Your task to perform on an android device: Search for flights from London to Paris Image 0: 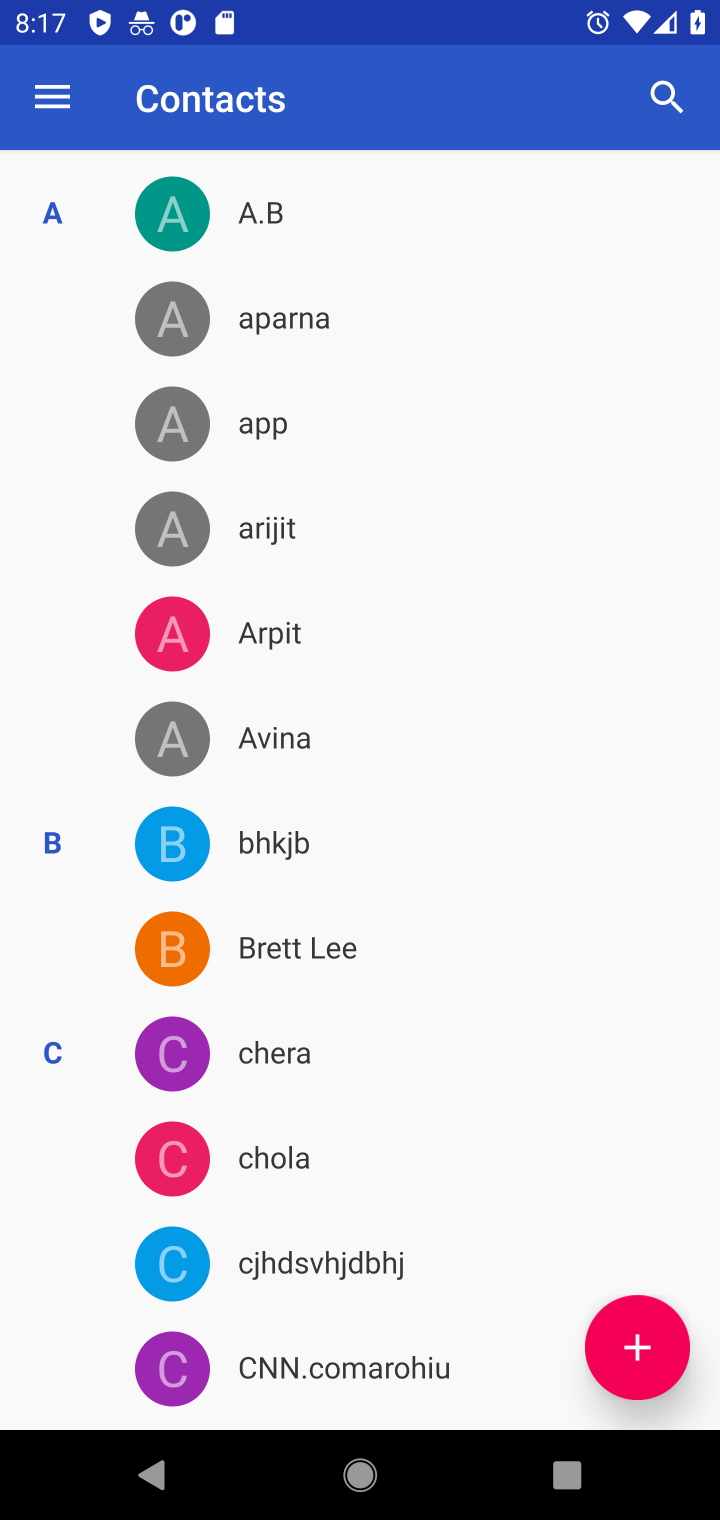
Step 0: press home button
Your task to perform on an android device: Search for flights from London to Paris Image 1: 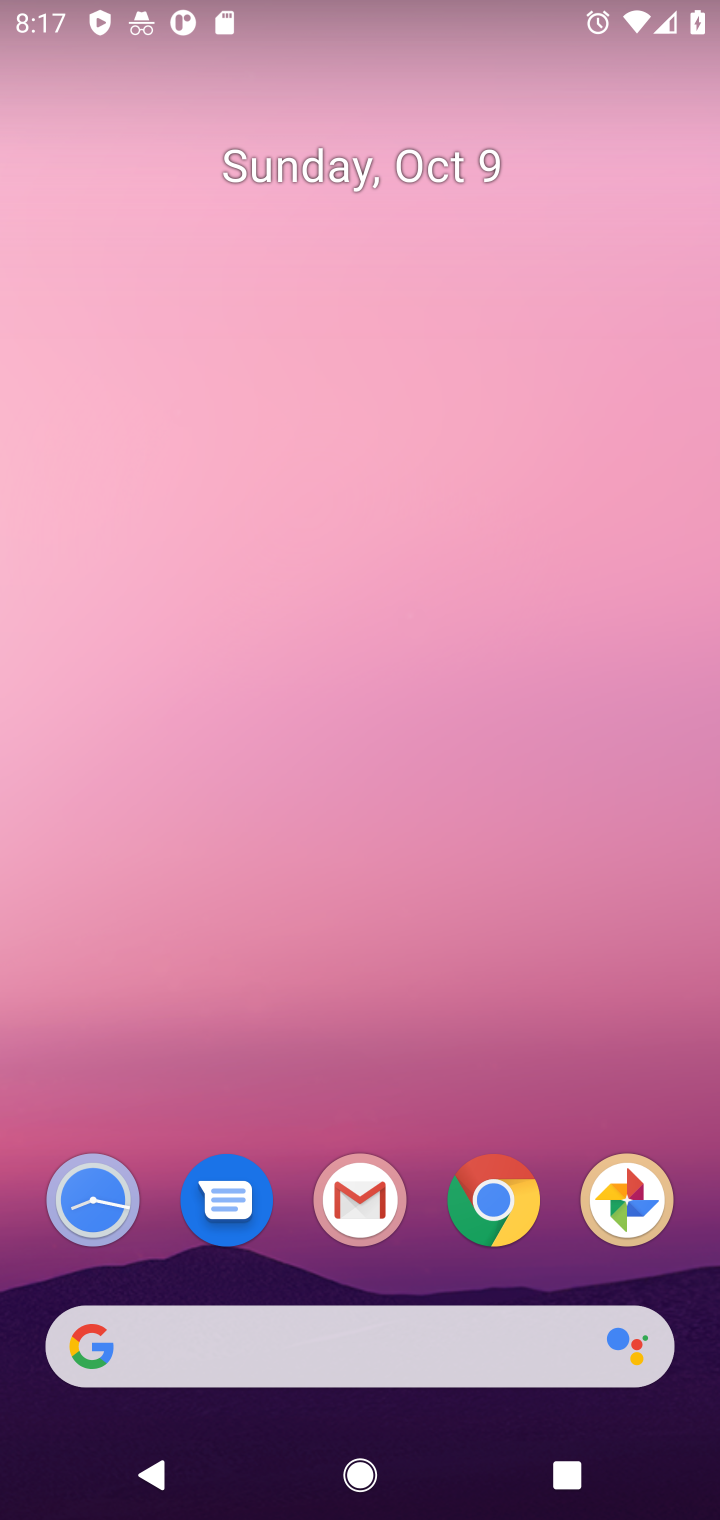
Step 1: click (505, 1229)
Your task to perform on an android device: Search for flights from London to Paris Image 2: 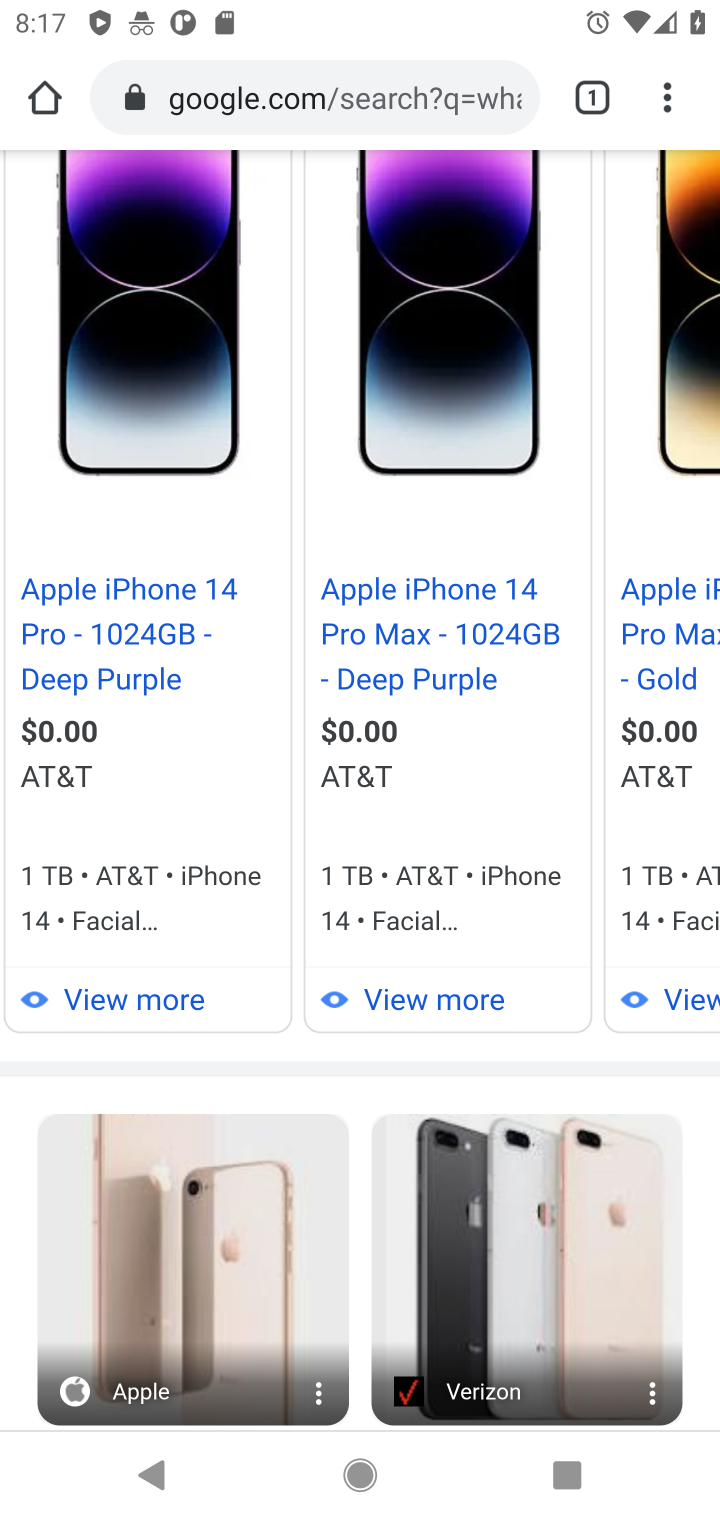
Step 2: click (356, 101)
Your task to perform on an android device: Search for flights from London to Paris Image 3: 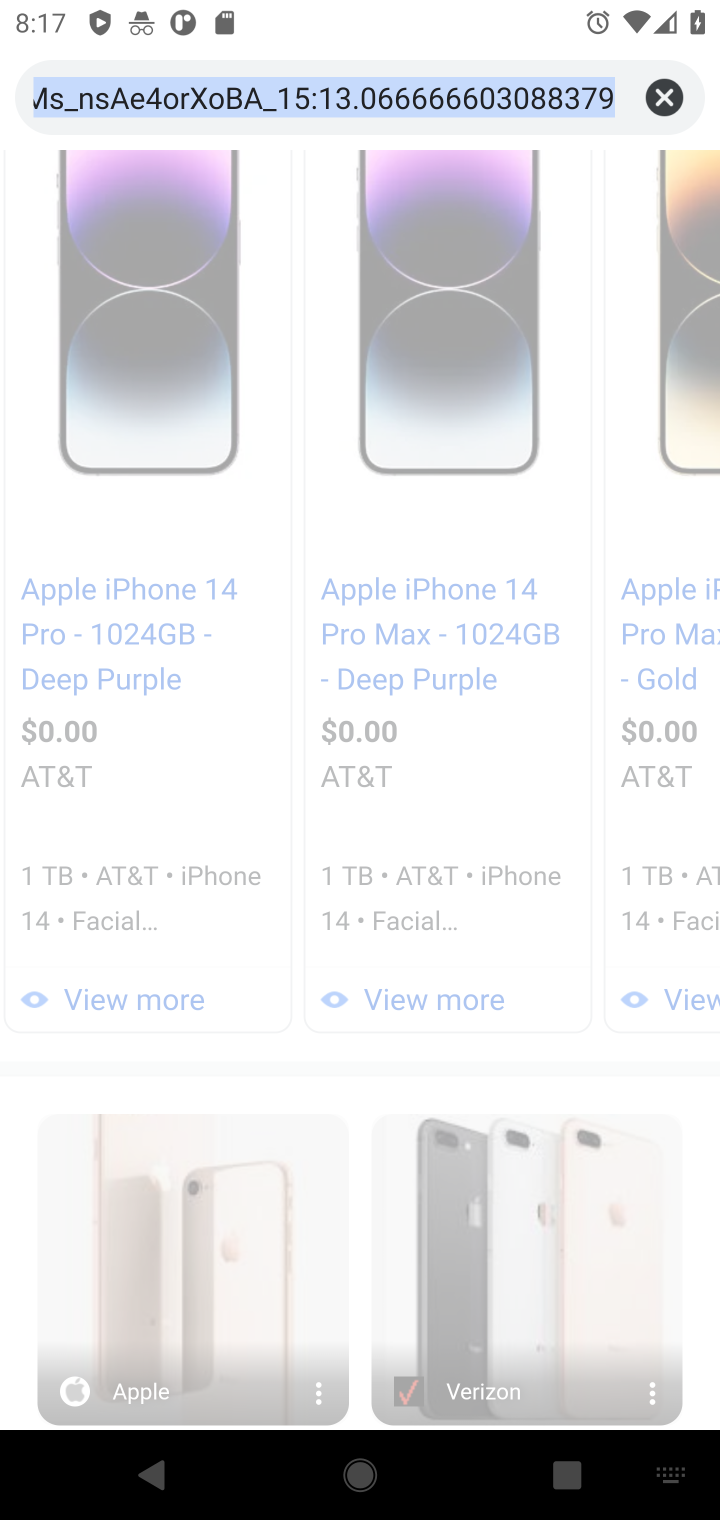
Step 3: type "flights from London to Paris"
Your task to perform on an android device: Search for flights from London to Paris Image 4: 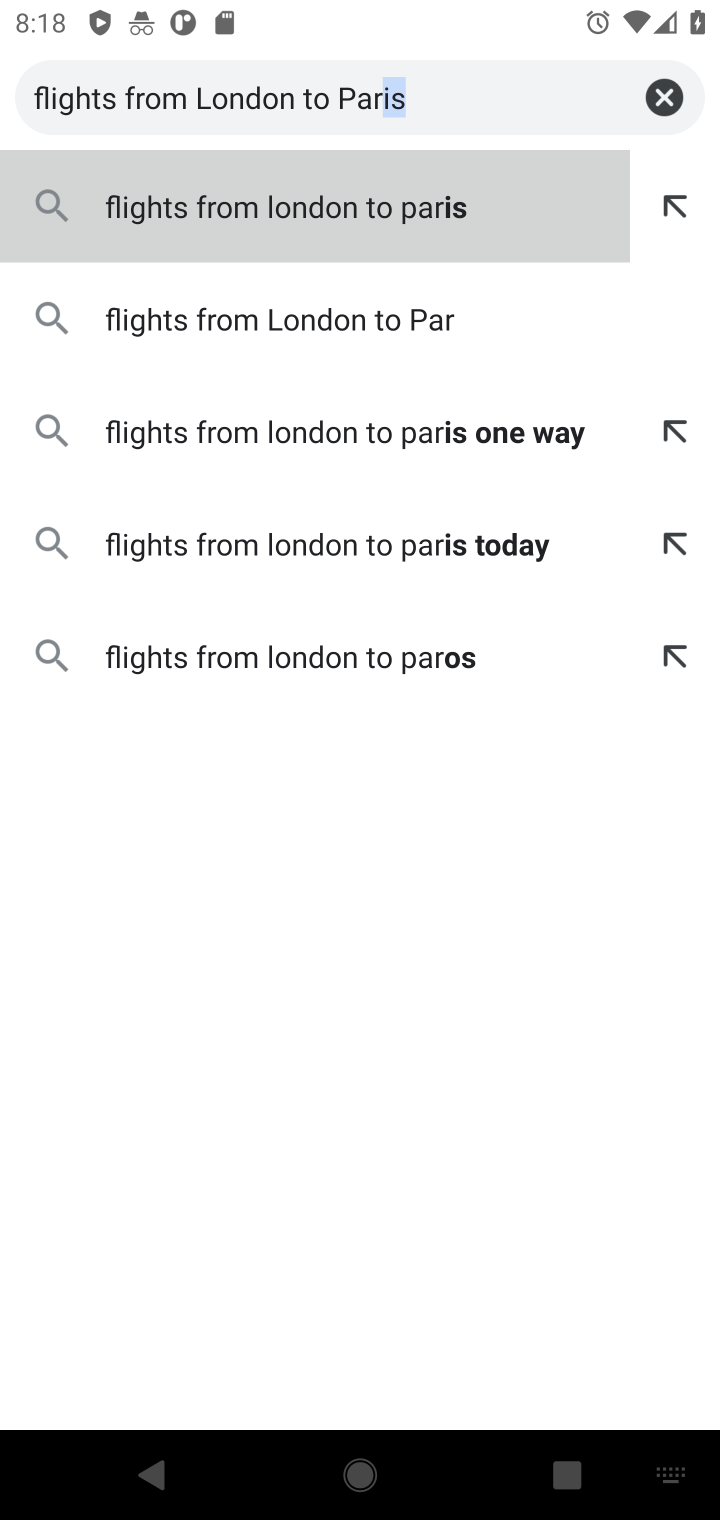
Step 4: click (377, 205)
Your task to perform on an android device: Search for flights from London to Paris Image 5: 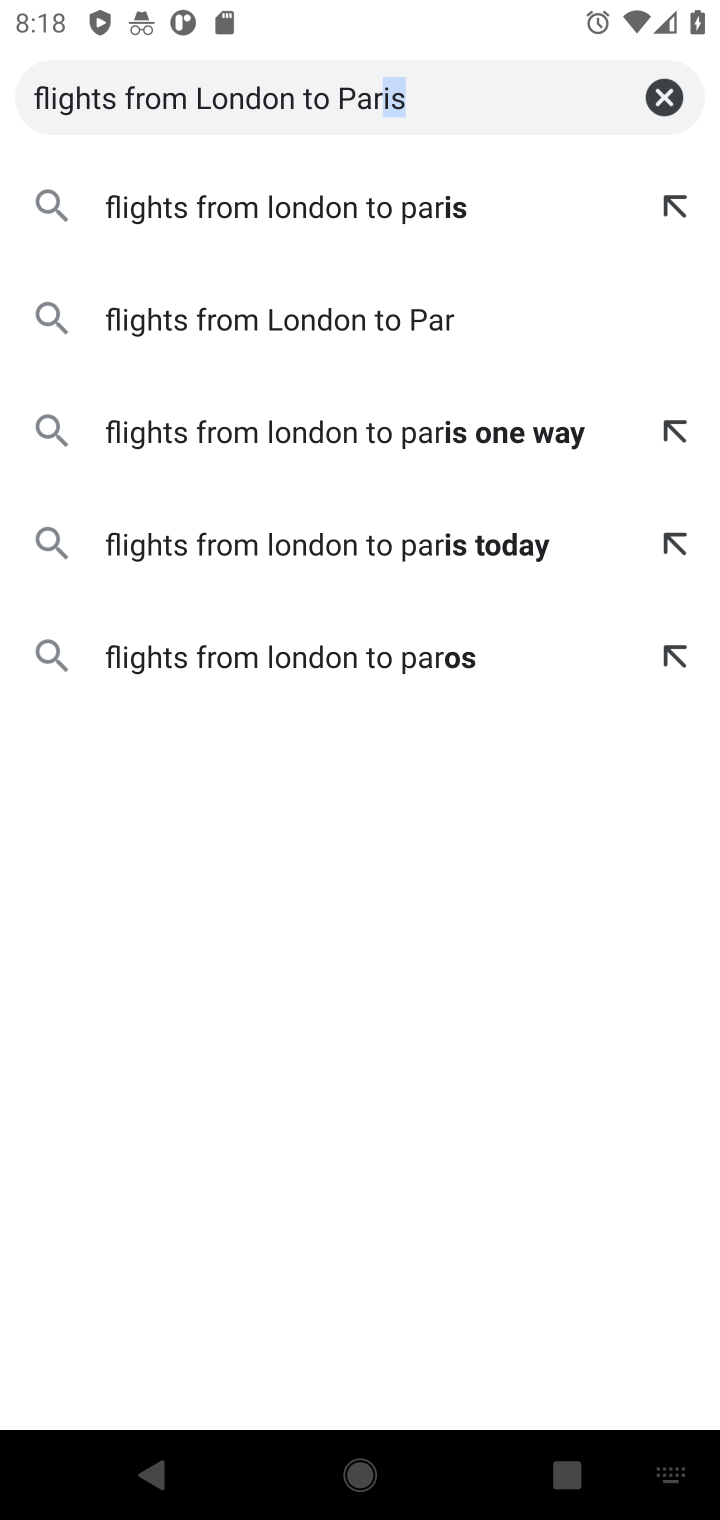
Step 5: click (385, 205)
Your task to perform on an android device: Search for flights from London to Paris Image 6: 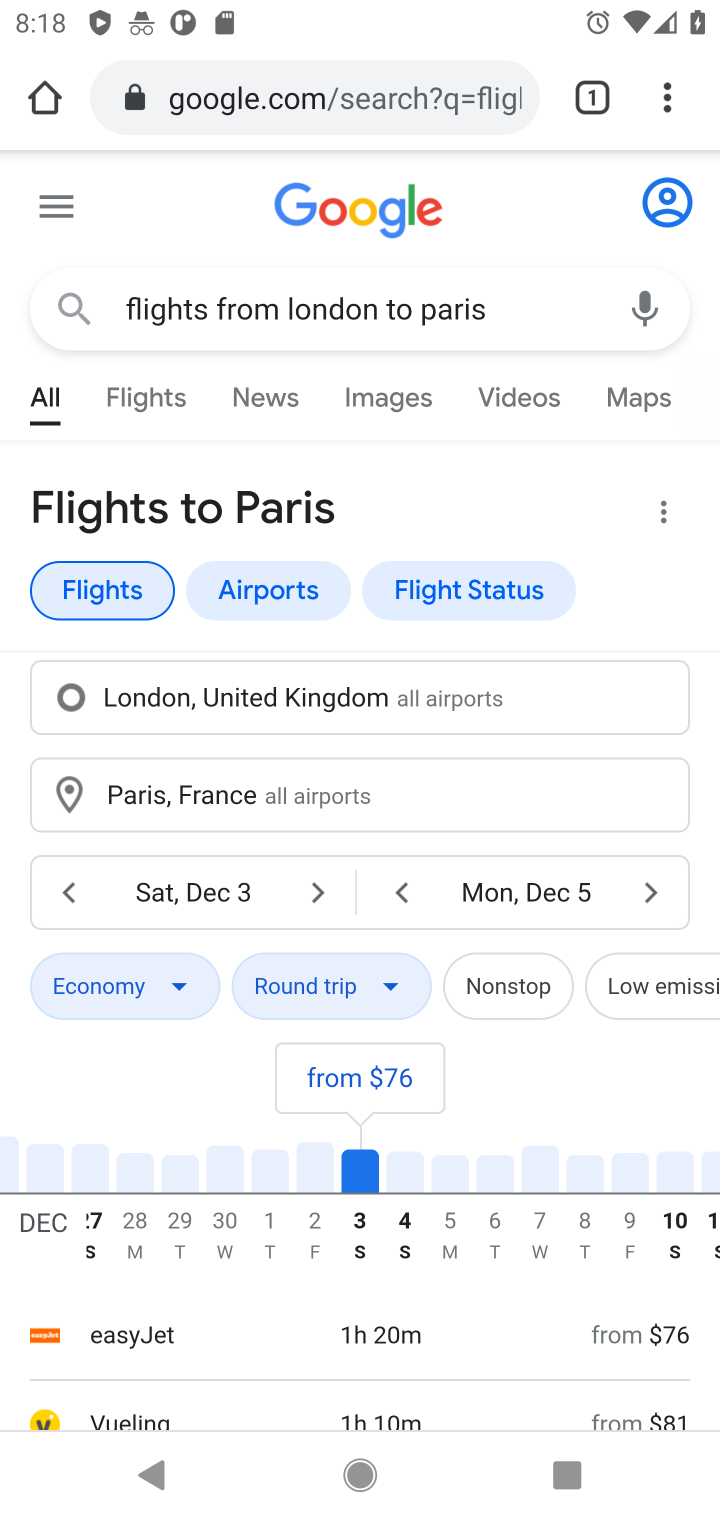
Step 6: drag from (493, 1081) to (438, 548)
Your task to perform on an android device: Search for flights from London to Paris Image 7: 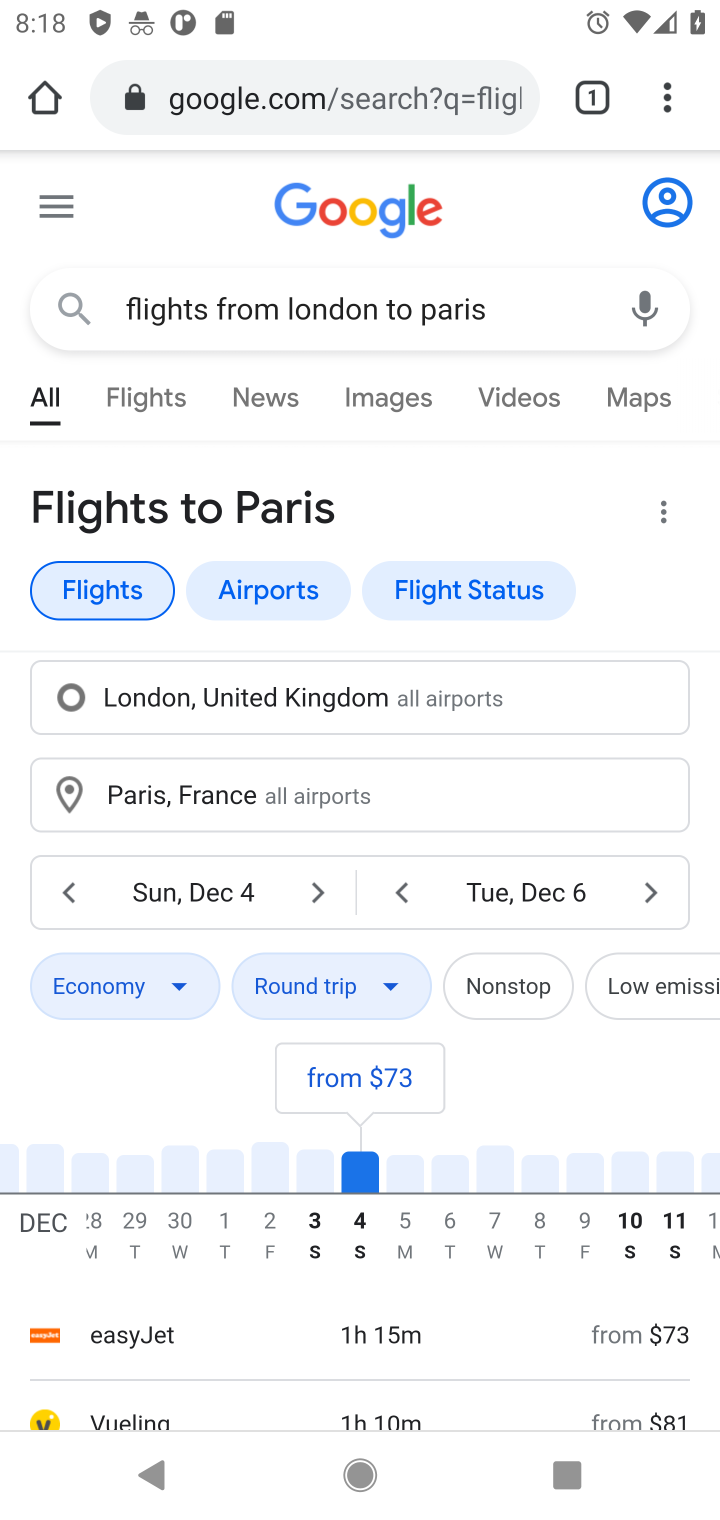
Step 7: drag from (603, 1051) to (516, 377)
Your task to perform on an android device: Search for flights from London to Paris Image 8: 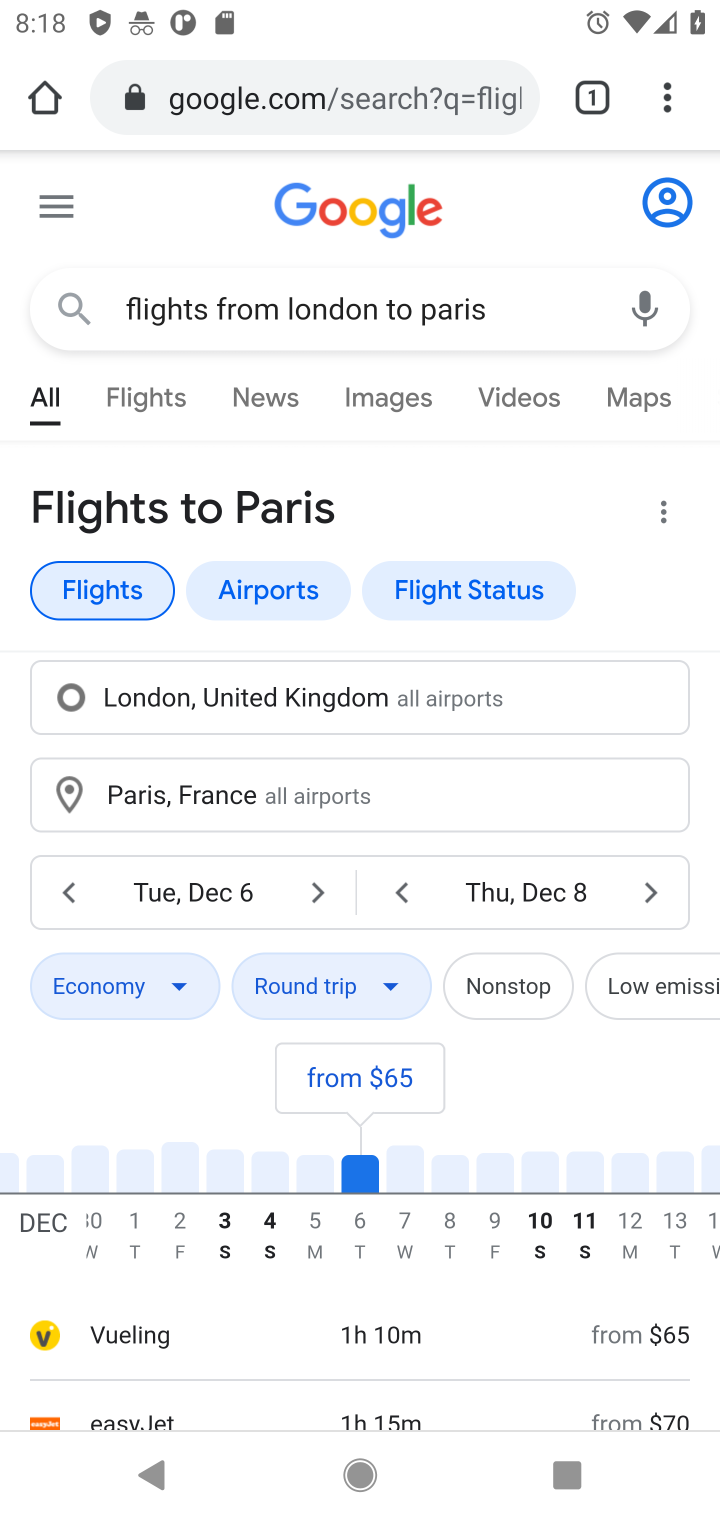
Step 8: drag from (504, 1368) to (423, 377)
Your task to perform on an android device: Search for flights from London to Paris Image 9: 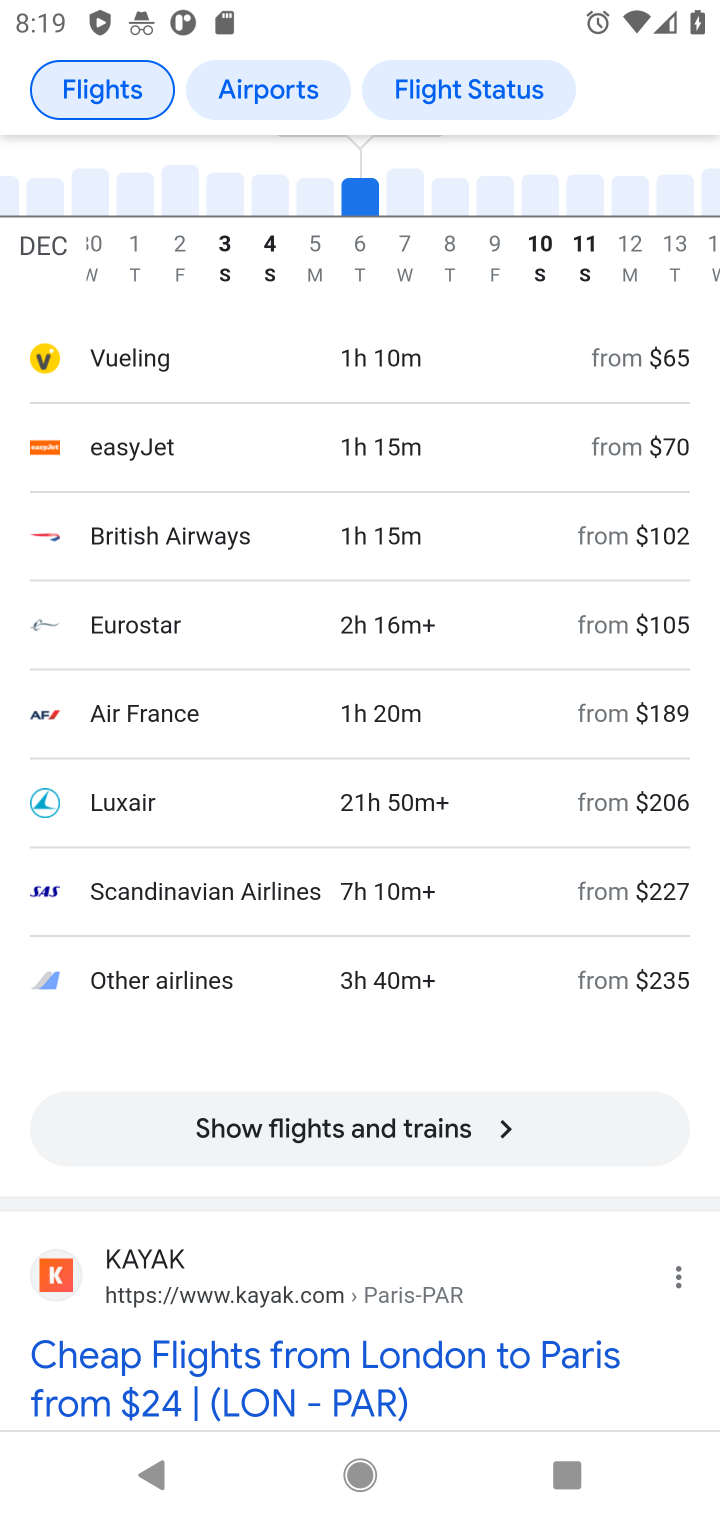
Step 9: click (410, 1127)
Your task to perform on an android device: Search for flights from London to Paris Image 10: 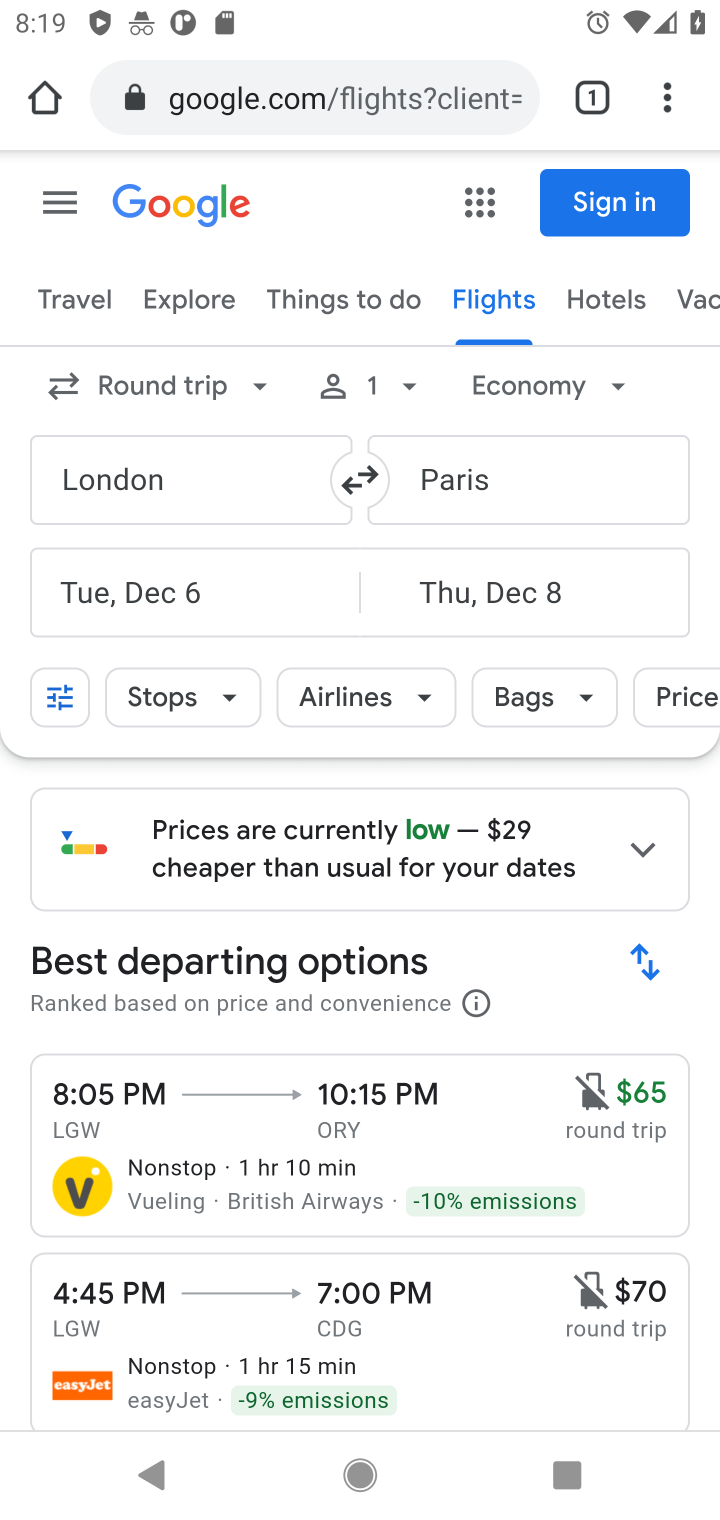
Step 10: task complete